Your task to perform on an android device: Find coffee shops on Maps Image 0: 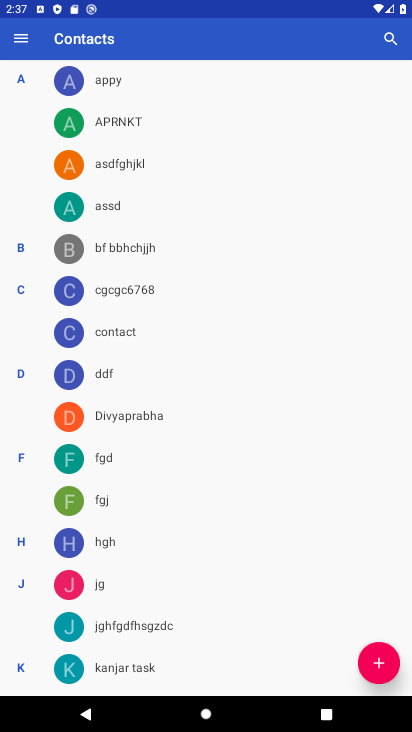
Step 0: press home button
Your task to perform on an android device: Find coffee shops on Maps Image 1: 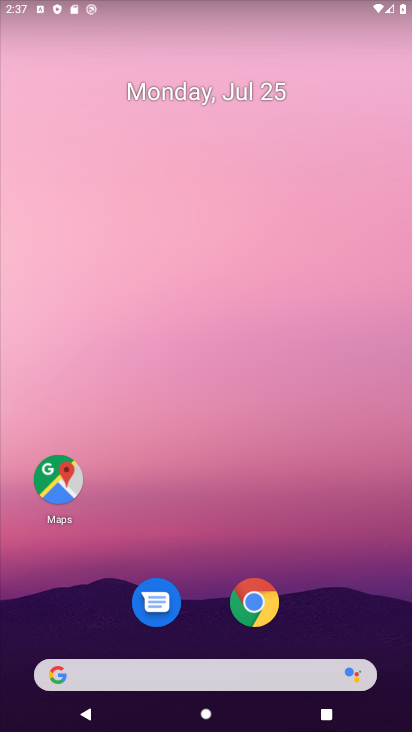
Step 1: click (67, 469)
Your task to perform on an android device: Find coffee shops on Maps Image 2: 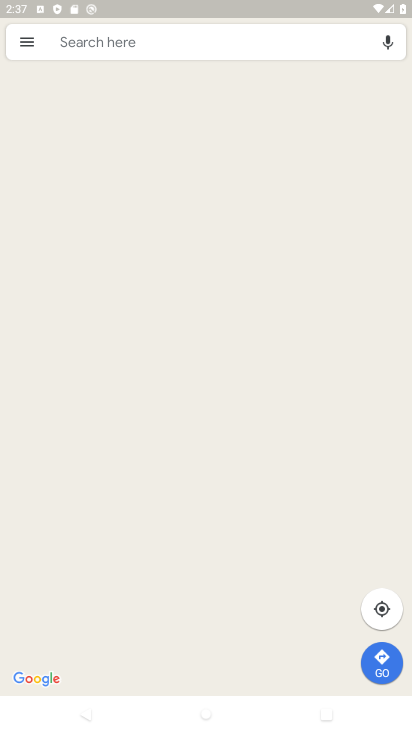
Step 2: click (203, 38)
Your task to perform on an android device: Find coffee shops on Maps Image 3: 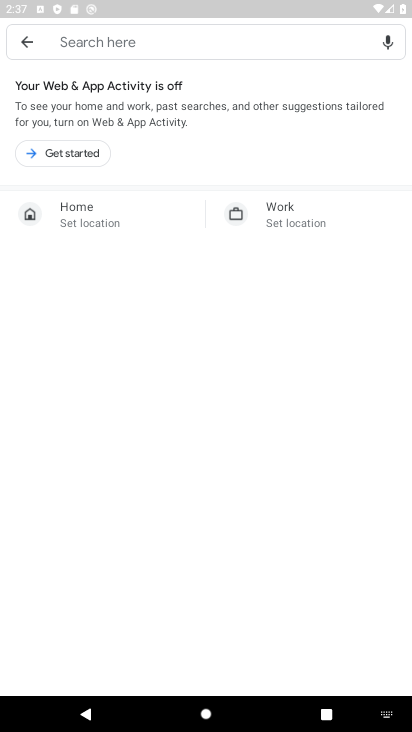
Step 3: click (250, 51)
Your task to perform on an android device: Find coffee shops on Maps Image 4: 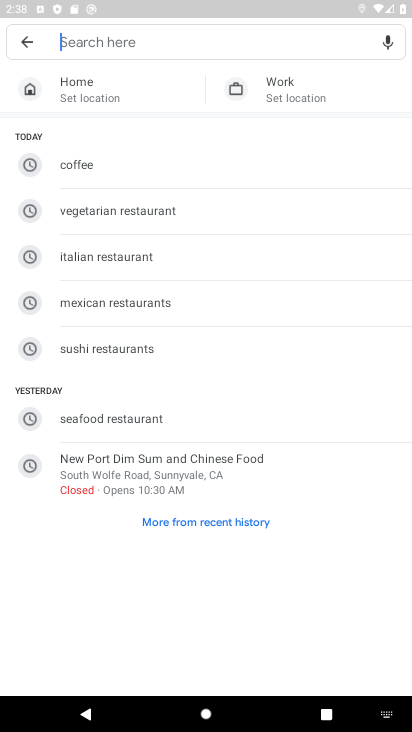
Step 4: type "coffee shops"
Your task to perform on an android device: Find coffee shops on Maps Image 5: 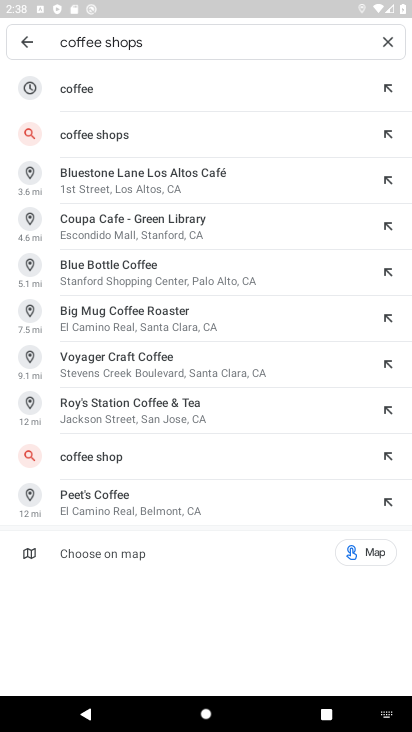
Step 5: press enter
Your task to perform on an android device: Find coffee shops on Maps Image 6: 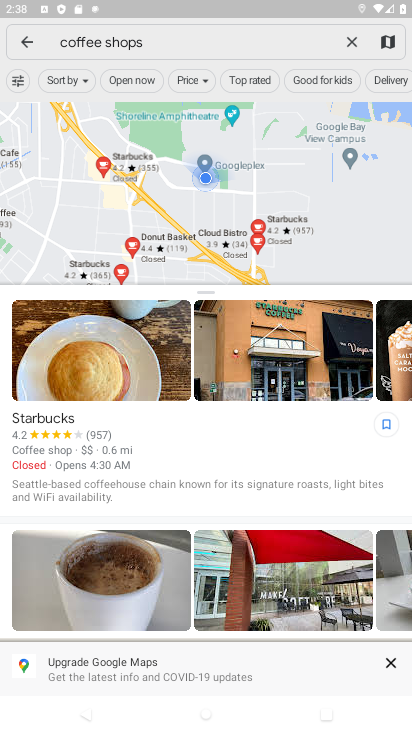
Step 6: task complete